Your task to perform on an android device: install app "Google Play services" Image 0: 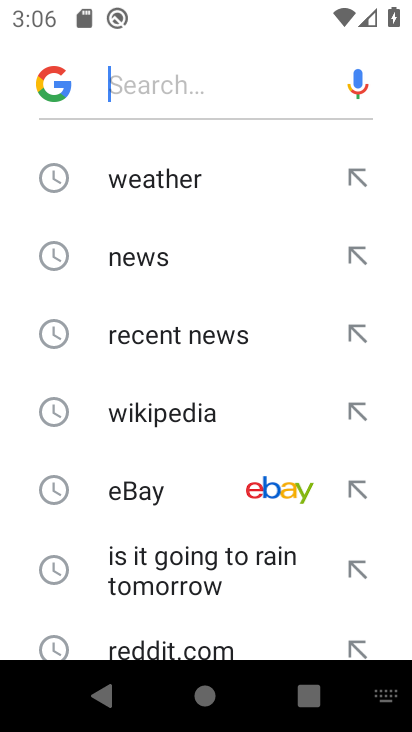
Step 0: press home button
Your task to perform on an android device: install app "Google Play services" Image 1: 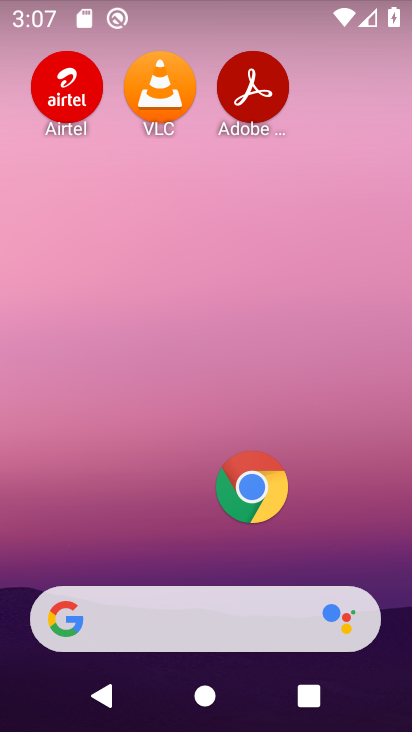
Step 1: drag from (139, 556) to (170, 209)
Your task to perform on an android device: install app "Google Play services" Image 2: 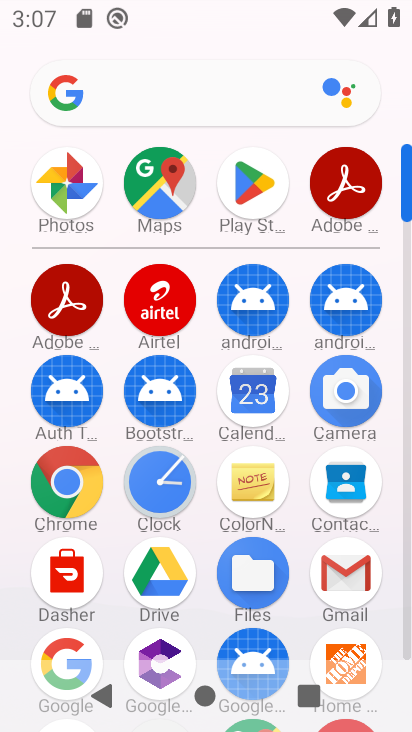
Step 2: click (234, 169)
Your task to perform on an android device: install app "Google Play services" Image 3: 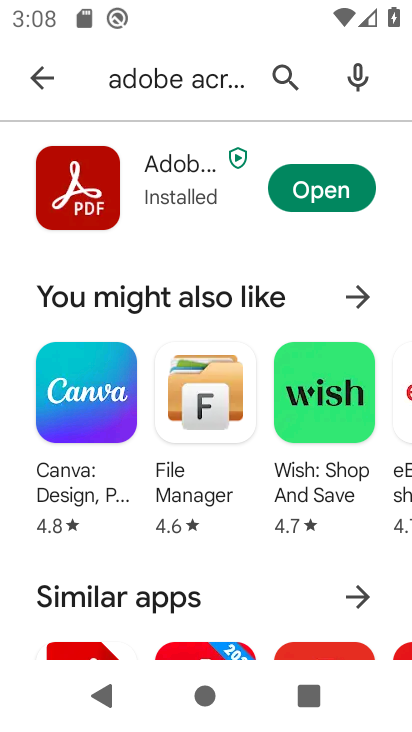
Step 3: click (26, 69)
Your task to perform on an android device: install app "Google Play services" Image 4: 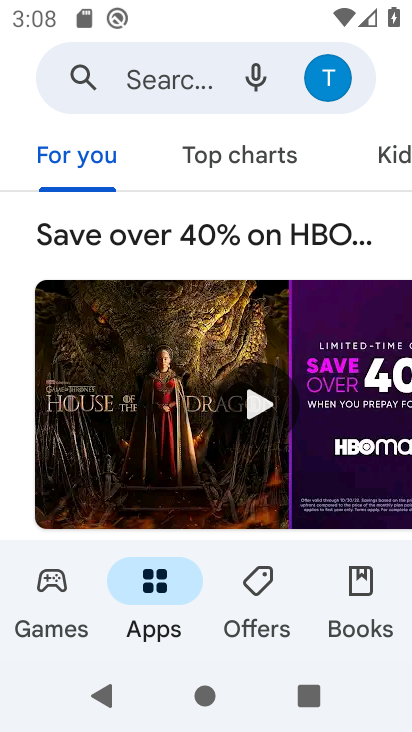
Step 4: click (189, 69)
Your task to perform on an android device: install app "Google Play services" Image 5: 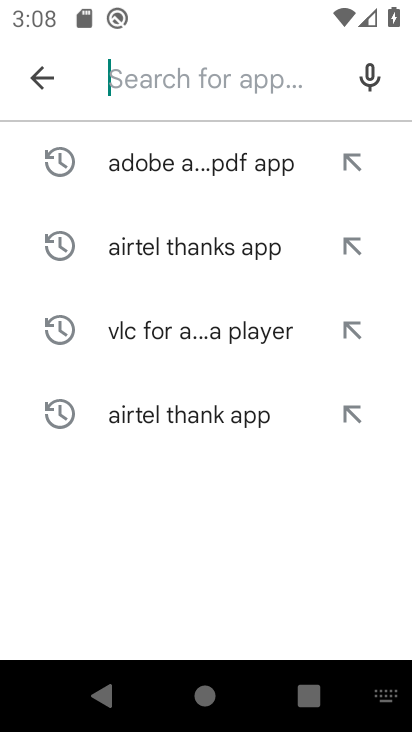
Step 5: type "Google Play services "
Your task to perform on an android device: install app "Google Play services" Image 6: 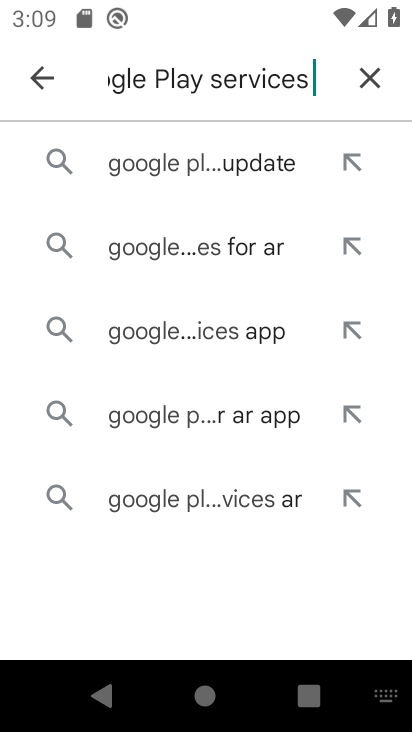
Step 6: click (221, 151)
Your task to perform on an android device: install app "Google Play services" Image 7: 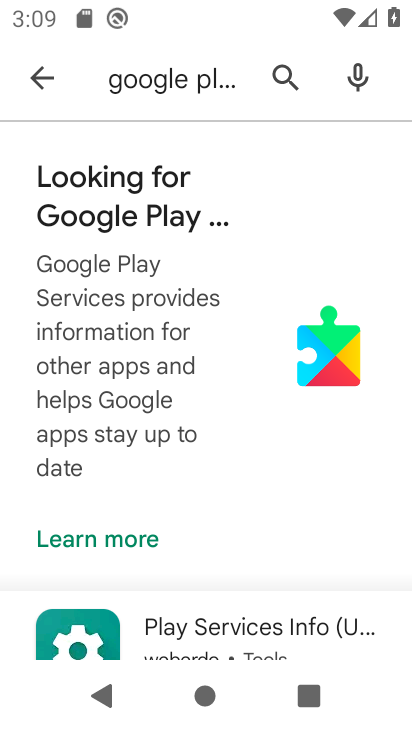
Step 7: click (37, 65)
Your task to perform on an android device: install app "Google Play services" Image 8: 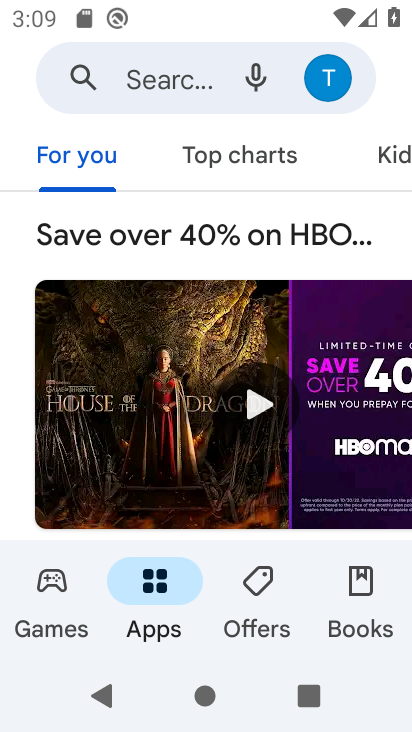
Step 8: click (139, 70)
Your task to perform on an android device: install app "Google Play services" Image 9: 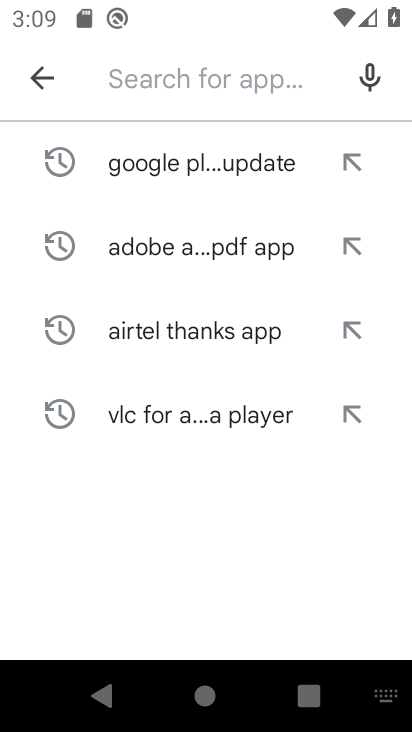
Step 9: click (168, 78)
Your task to perform on an android device: install app "Google Play services" Image 10: 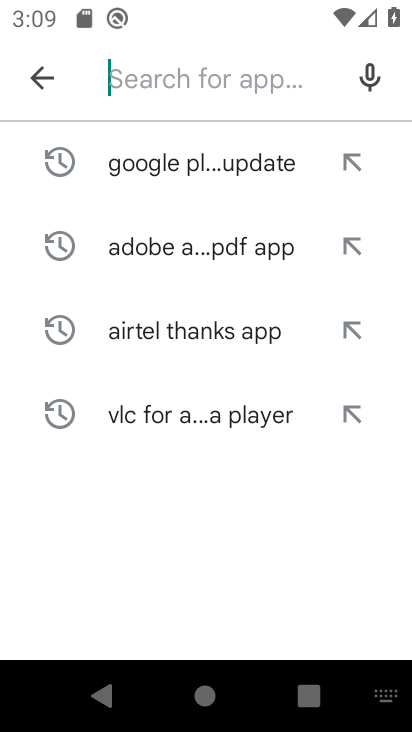
Step 10: type "Google Play services "
Your task to perform on an android device: install app "Google Play services" Image 11: 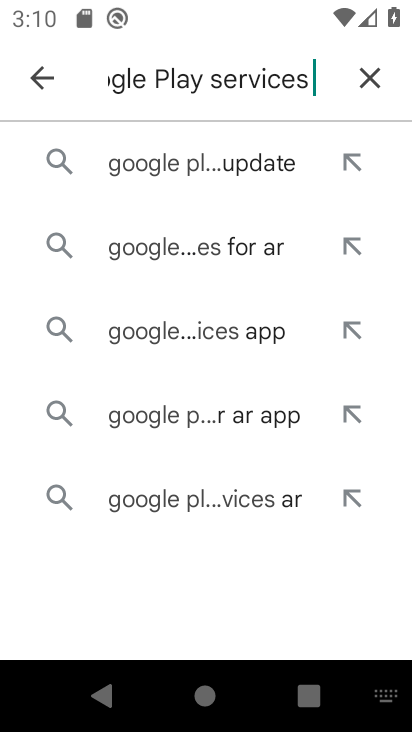
Step 11: click (249, 178)
Your task to perform on an android device: install app "Google Play services" Image 12: 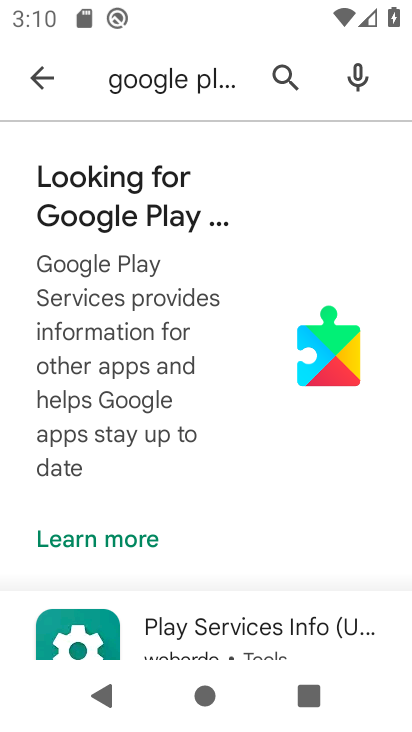
Step 12: drag from (317, 578) to (311, 130)
Your task to perform on an android device: install app "Google Play services" Image 13: 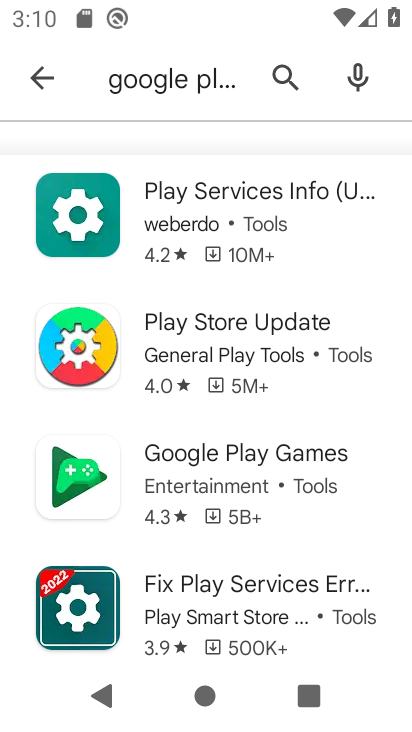
Step 13: click (228, 229)
Your task to perform on an android device: install app "Google Play services" Image 14: 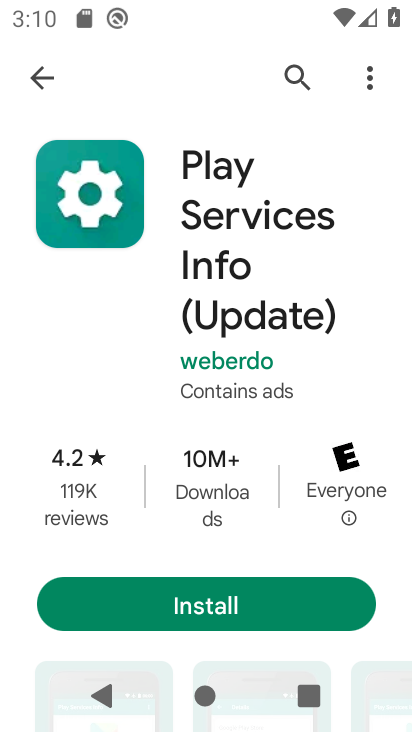
Step 14: click (31, 50)
Your task to perform on an android device: install app "Google Play services" Image 15: 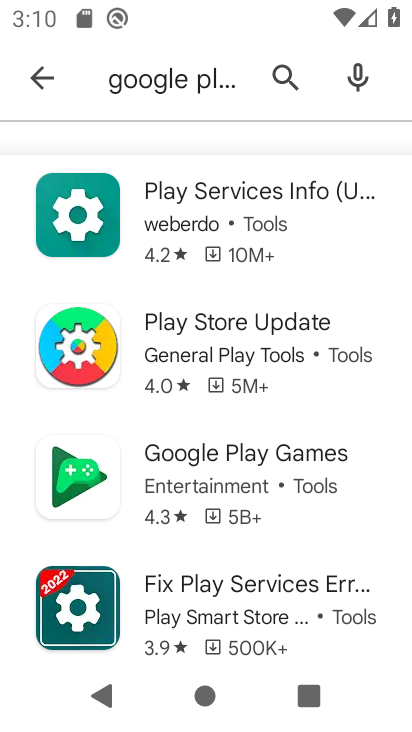
Step 15: task complete